Your task to perform on an android device: Clear all items from cart on costco.com. Image 0: 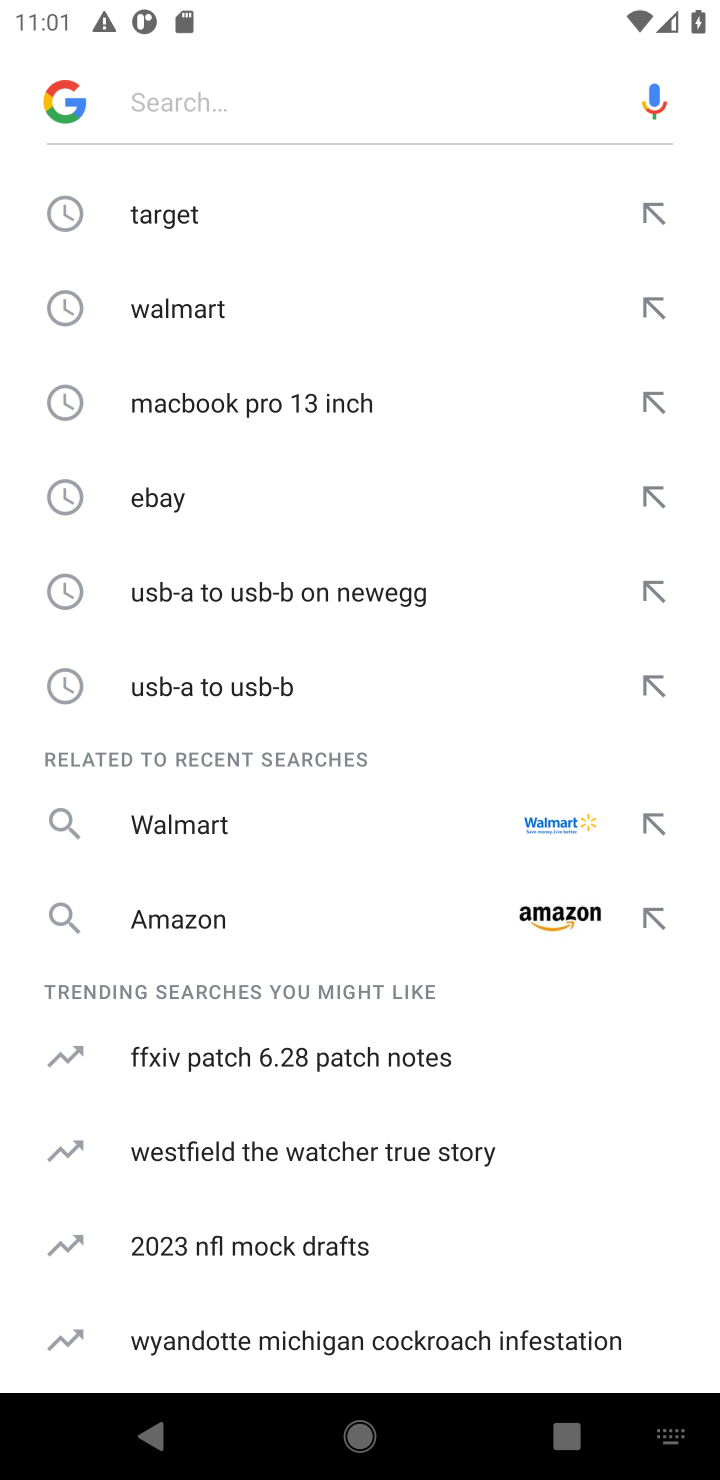
Step 0: type "costco.com"
Your task to perform on an android device: Clear all items from cart on costco.com. Image 1: 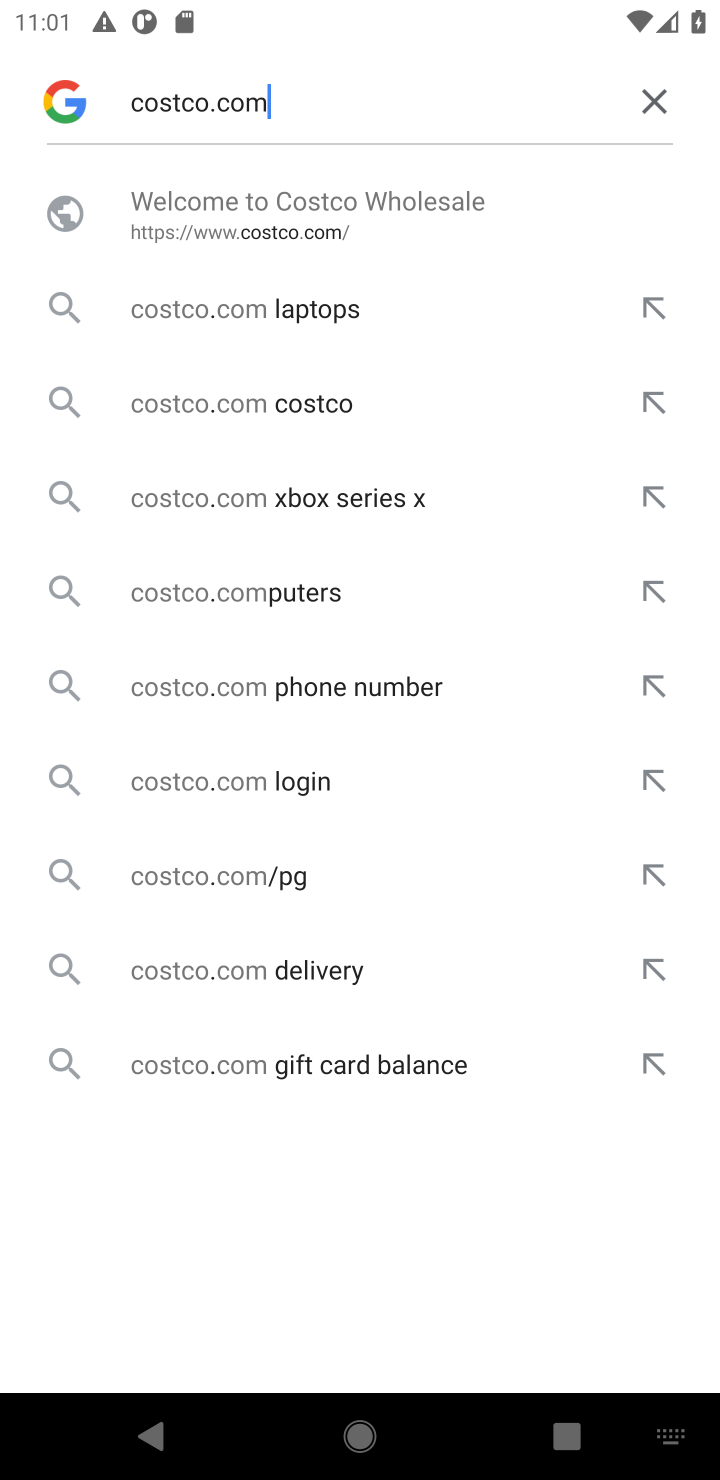
Step 1: press enter
Your task to perform on an android device: Clear all items from cart on costco.com. Image 2: 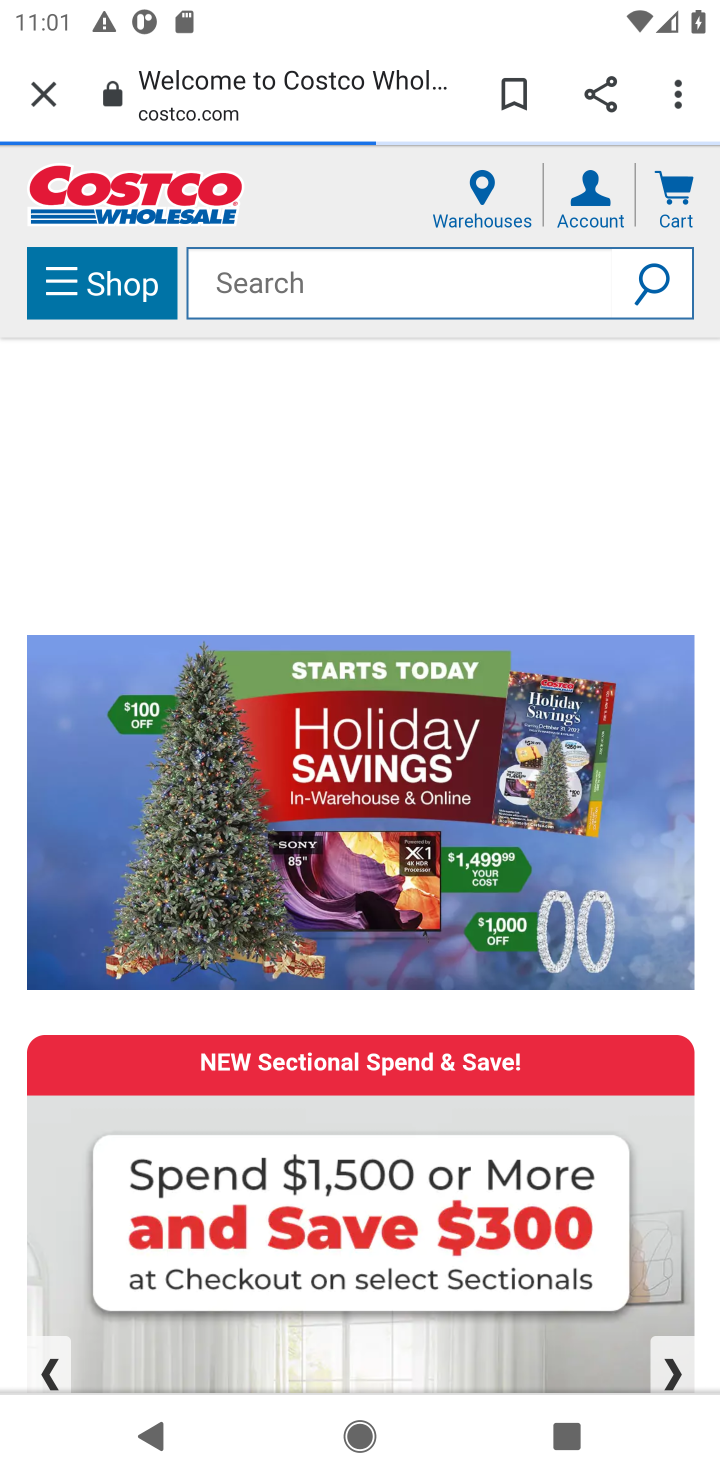
Step 2: click (676, 200)
Your task to perform on an android device: Clear all items from cart on costco.com. Image 3: 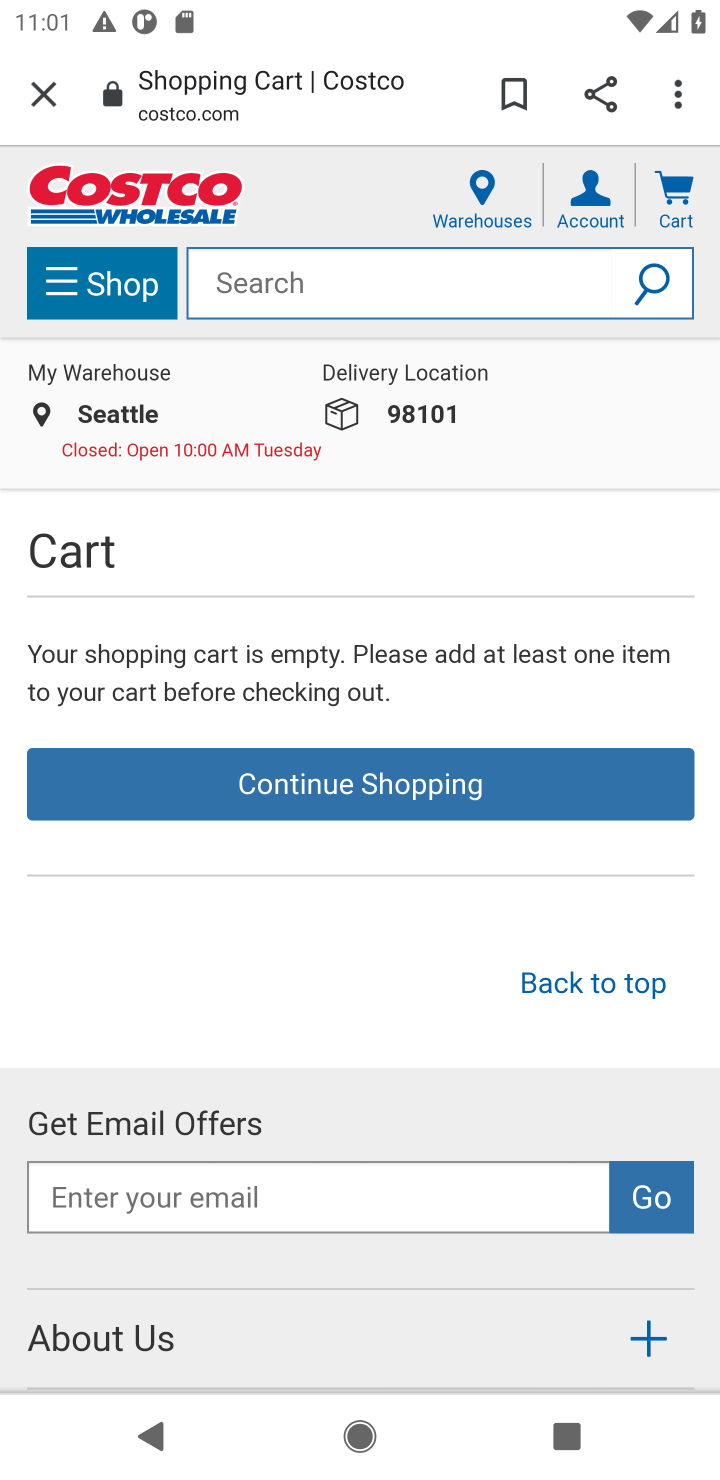
Step 3: task complete